Your task to perform on an android device: Go to notification settings Image 0: 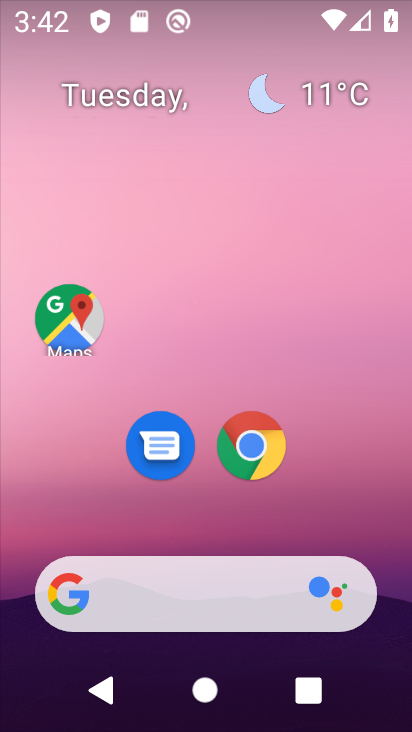
Step 0: drag from (59, 572) to (235, 115)
Your task to perform on an android device: Go to notification settings Image 1: 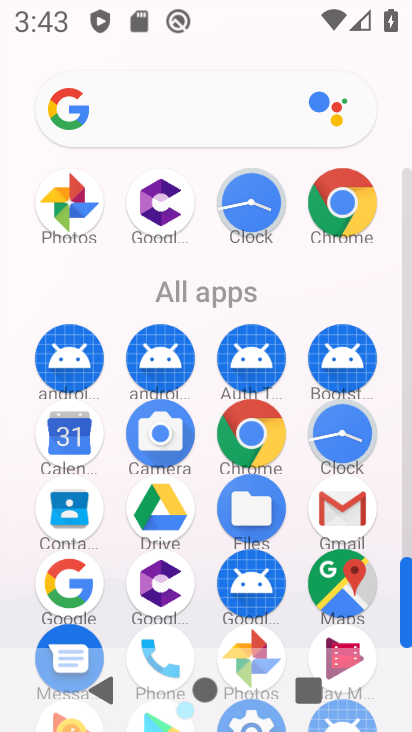
Step 1: drag from (126, 652) to (225, 362)
Your task to perform on an android device: Go to notification settings Image 2: 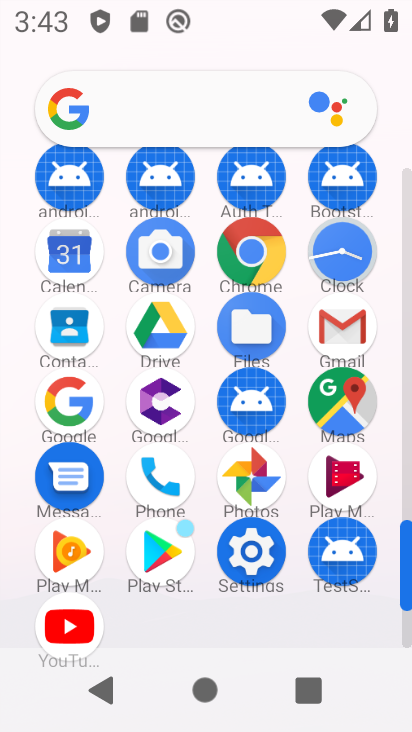
Step 2: click (251, 547)
Your task to perform on an android device: Go to notification settings Image 3: 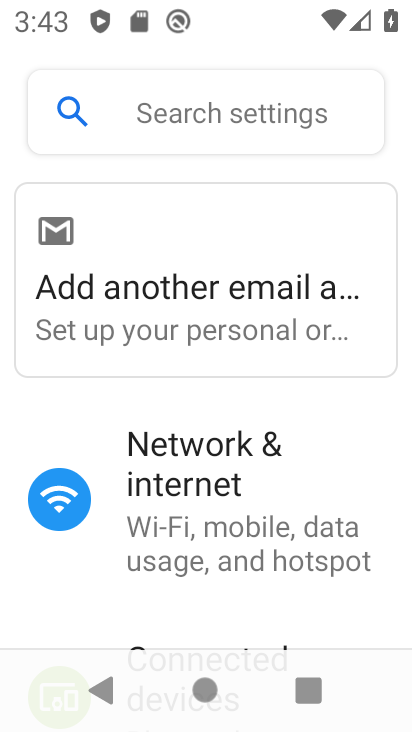
Step 3: drag from (240, 589) to (395, 105)
Your task to perform on an android device: Go to notification settings Image 4: 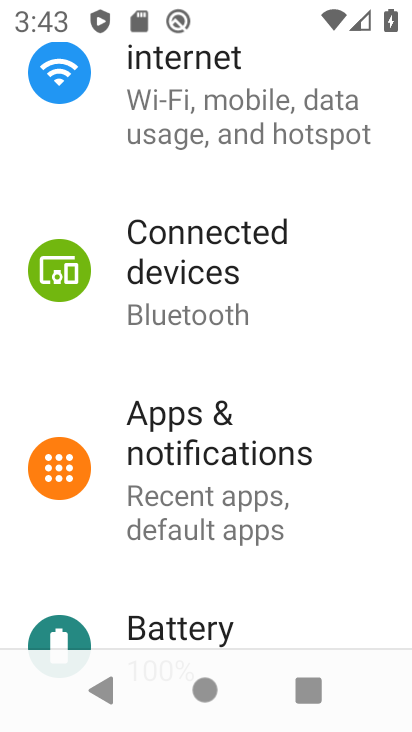
Step 4: click (293, 459)
Your task to perform on an android device: Go to notification settings Image 5: 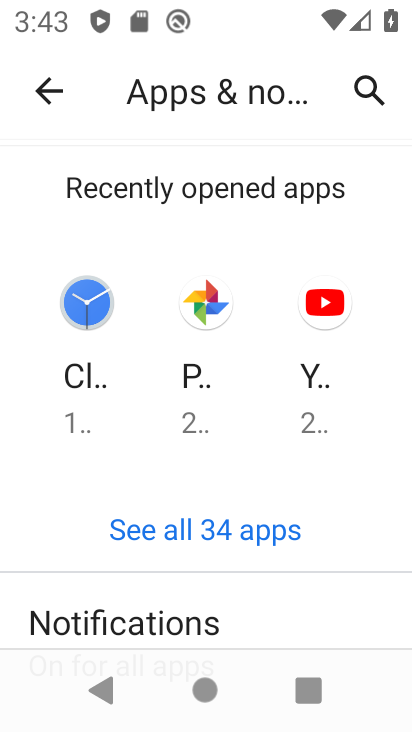
Step 5: drag from (239, 578) to (342, 349)
Your task to perform on an android device: Go to notification settings Image 6: 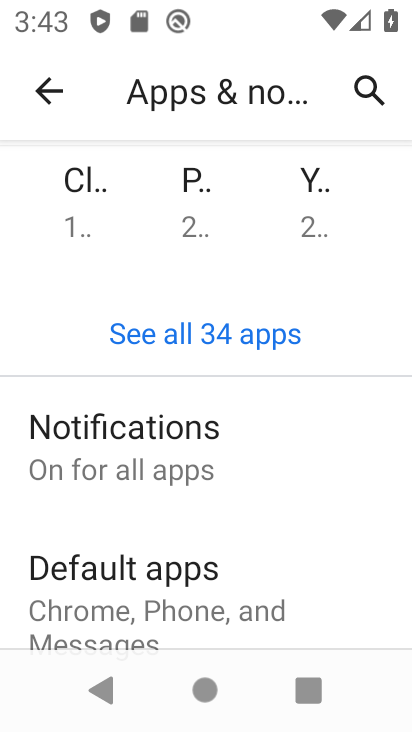
Step 6: click (228, 440)
Your task to perform on an android device: Go to notification settings Image 7: 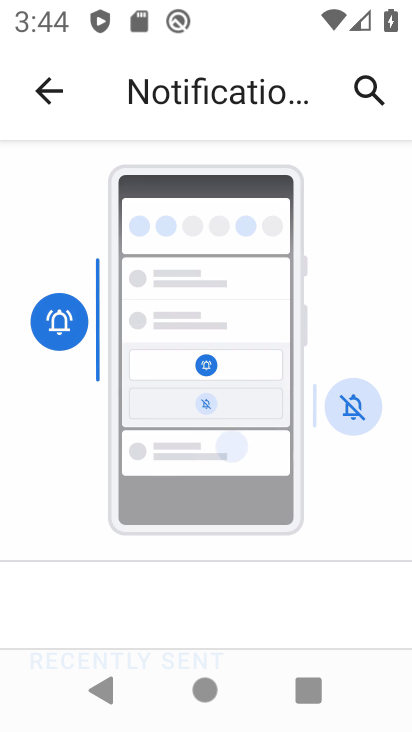
Step 7: task complete